Your task to perform on an android device: open device folders in google photos Image 0: 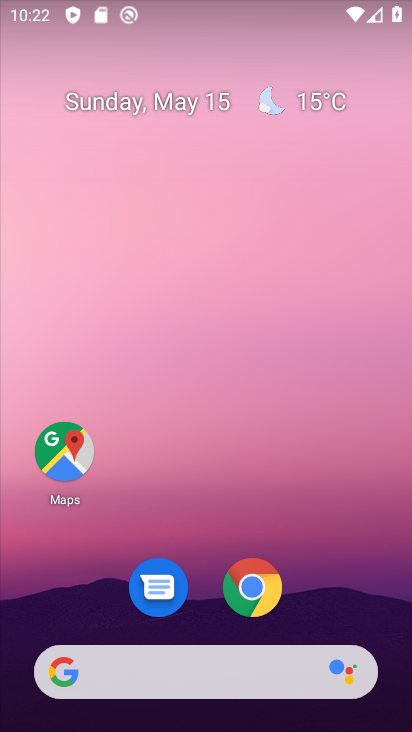
Step 0: drag from (112, 647) to (234, 124)
Your task to perform on an android device: open device folders in google photos Image 1: 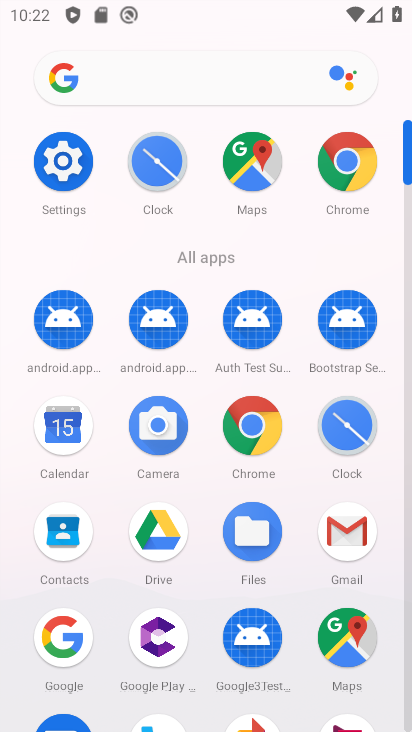
Step 1: drag from (257, 631) to (296, 391)
Your task to perform on an android device: open device folders in google photos Image 2: 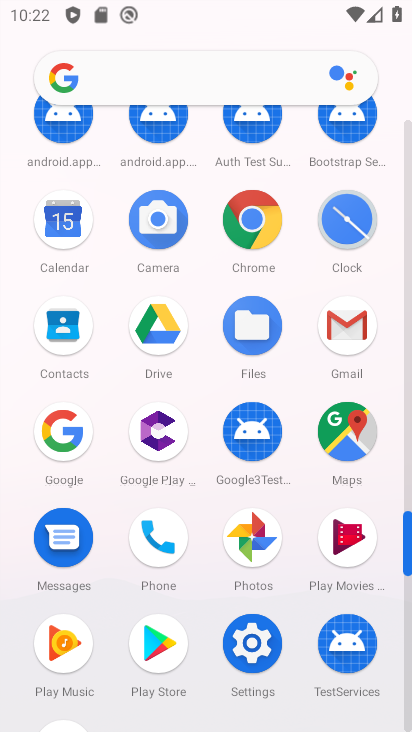
Step 2: click (236, 543)
Your task to perform on an android device: open device folders in google photos Image 3: 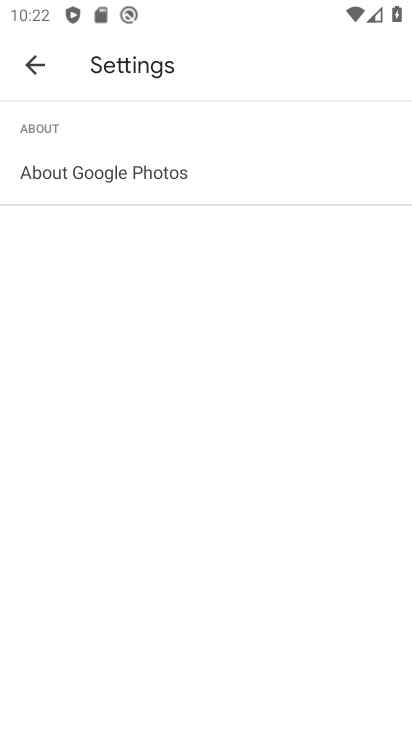
Step 3: click (50, 69)
Your task to perform on an android device: open device folders in google photos Image 4: 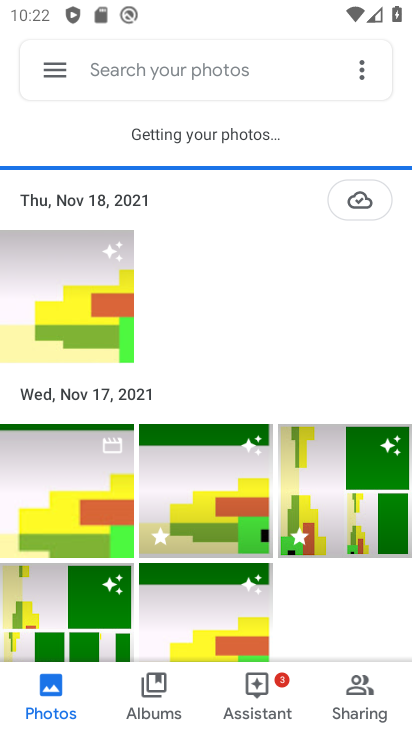
Step 4: click (57, 66)
Your task to perform on an android device: open device folders in google photos Image 5: 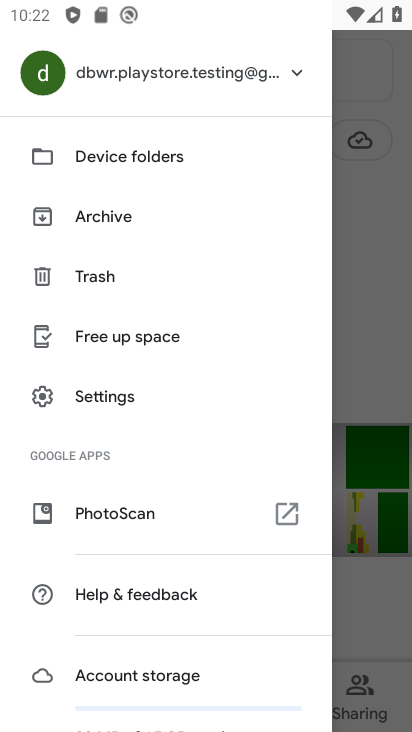
Step 5: click (189, 171)
Your task to perform on an android device: open device folders in google photos Image 6: 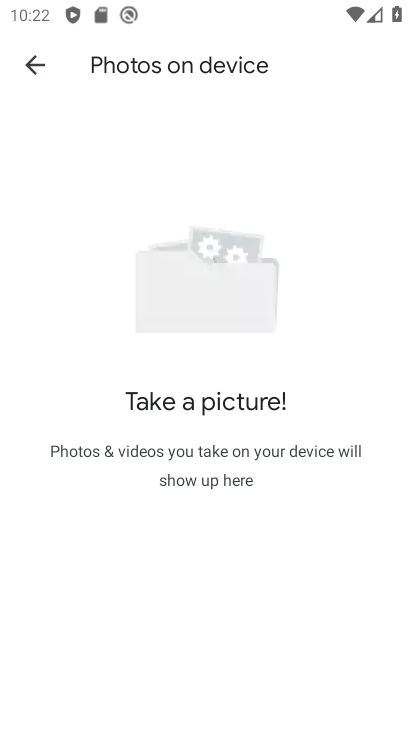
Step 6: task complete